Your task to perform on an android device: Search for pizza restaurants on Maps Image 0: 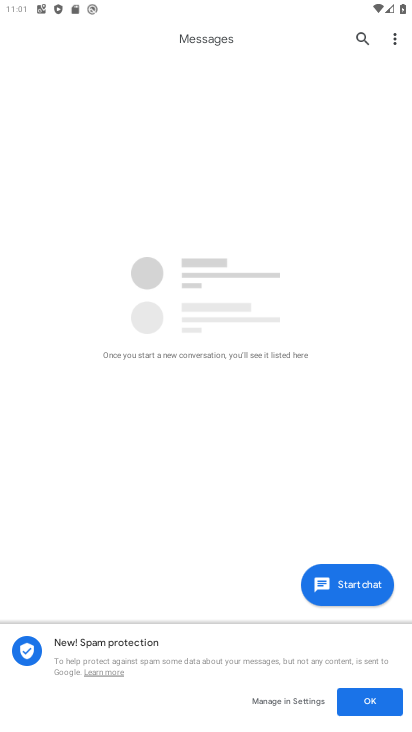
Step 0: press home button
Your task to perform on an android device: Search for pizza restaurants on Maps Image 1: 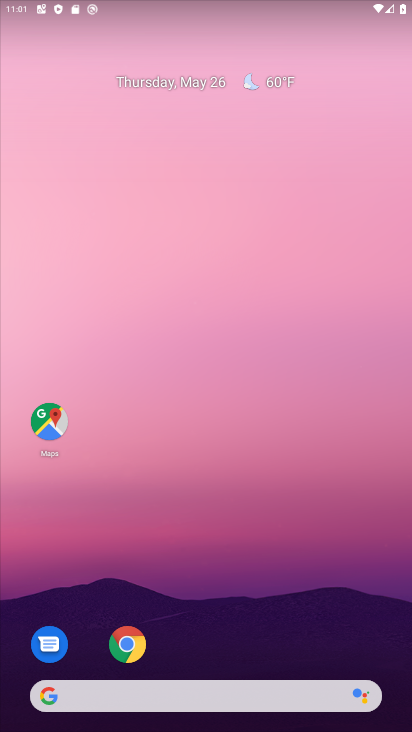
Step 1: click (50, 428)
Your task to perform on an android device: Search for pizza restaurants on Maps Image 2: 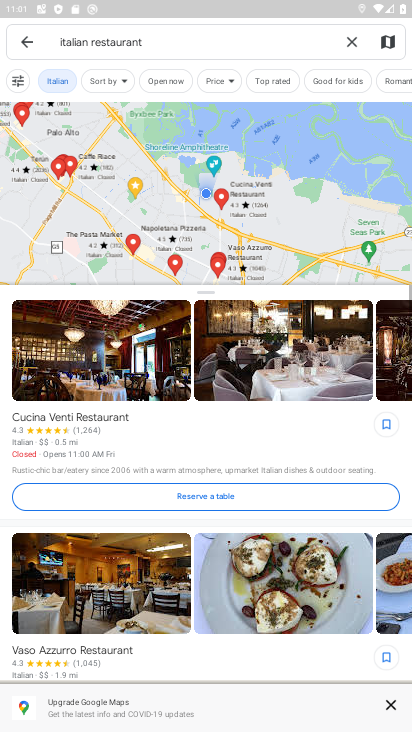
Step 2: click (356, 42)
Your task to perform on an android device: Search for pizza restaurants on Maps Image 3: 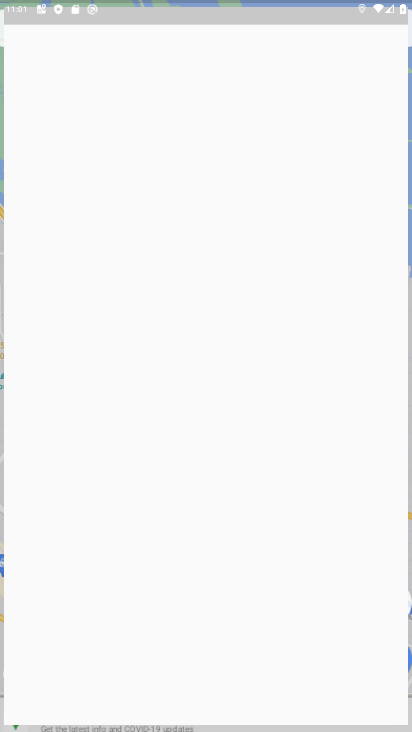
Step 3: click (140, 42)
Your task to perform on an android device: Search for pizza restaurants on Maps Image 4: 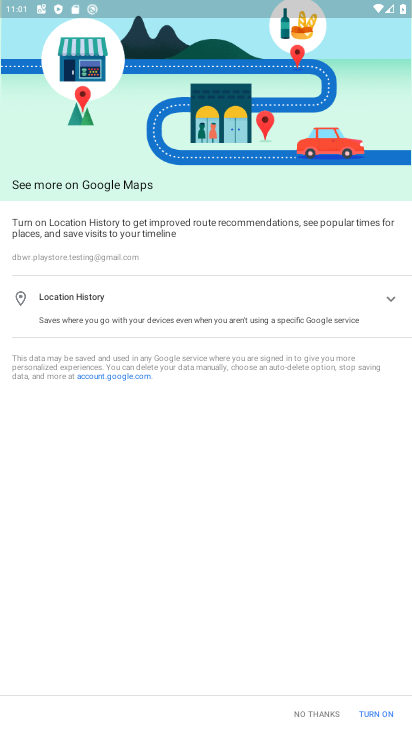
Step 4: click (315, 712)
Your task to perform on an android device: Search for pizza restaurants on Maps Image 5: 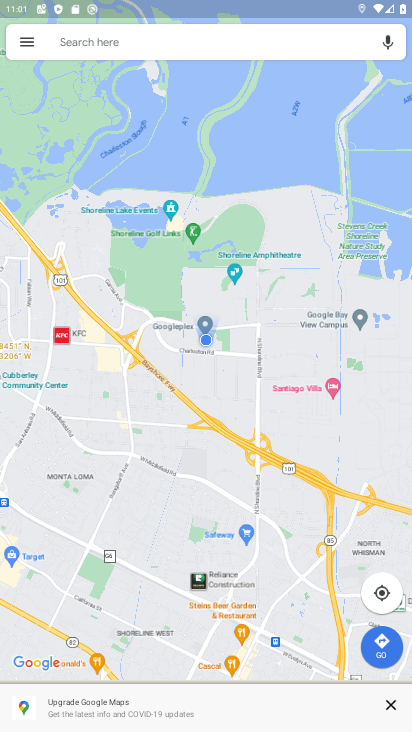
Step 5: click (402, 711)
Your task to perform on an android device: Search for pizza restaurants on Maps Image 6: 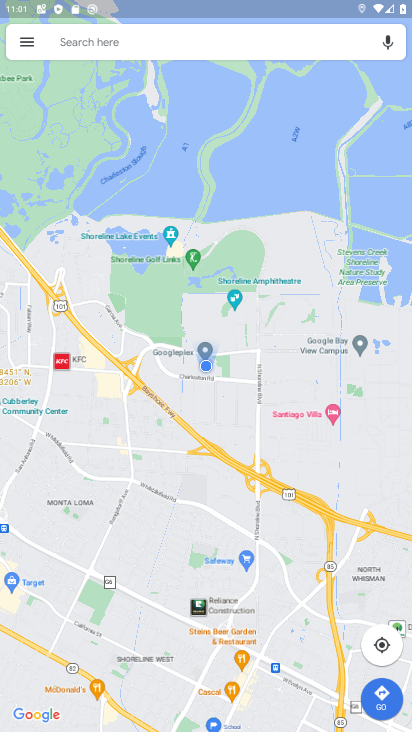
Step 6: click (217, 51)
Your task to perform on an android device: Search for pizza restaurants on Maps Image 7: 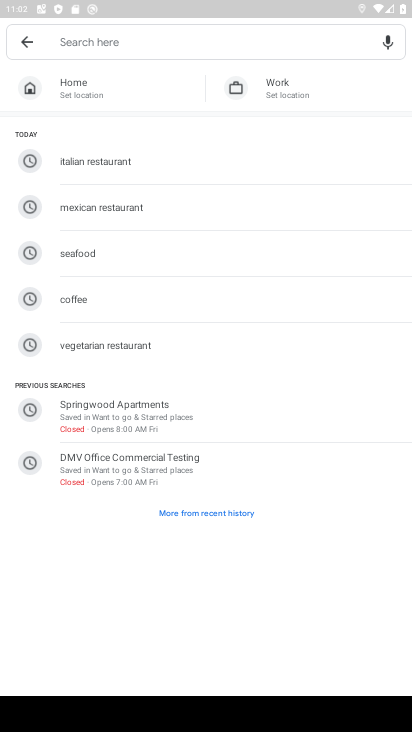
Step 7: type "Pizza restaurant"
Your task to perform on an android device: Search for pizza restaurants on Maps Image 8: 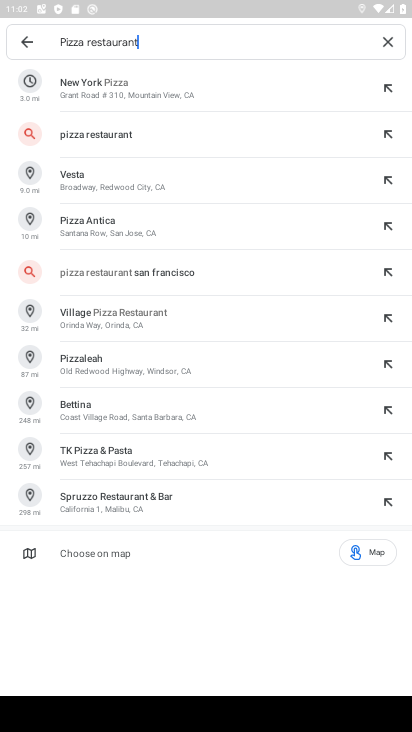
Step 8: type "s"
Your task to perform on an android device: Search for pizza restaurants on Maps Image 9: 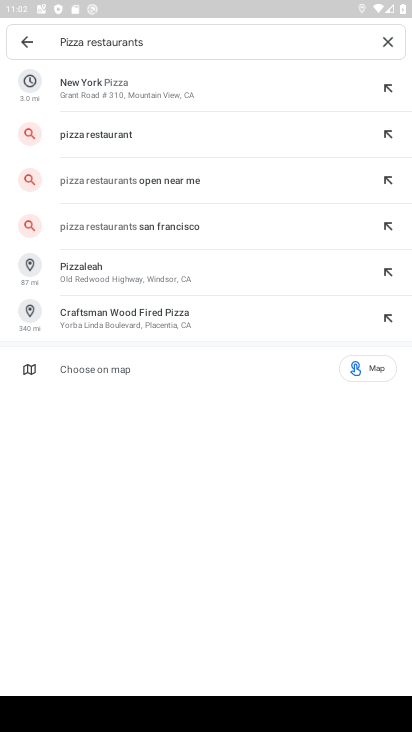
Step 9: click (178, 144)
Your task to perform on an android device: Search for pizza restaurants on Maps Image 10: 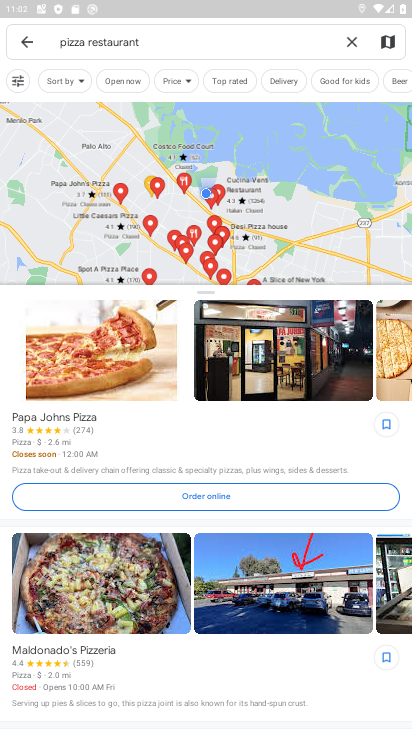
Step 10: task complete